Your task to perform on an android device: What's the weather today? Image 0: 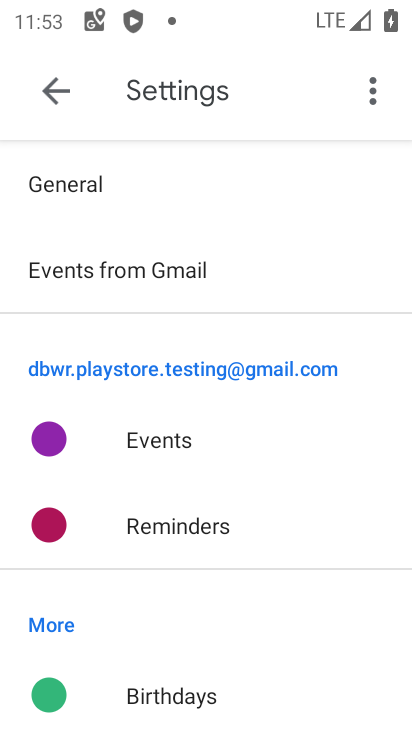
Step 0: press home button
Your task to perform on an android device: What's the weather today? Image 1: 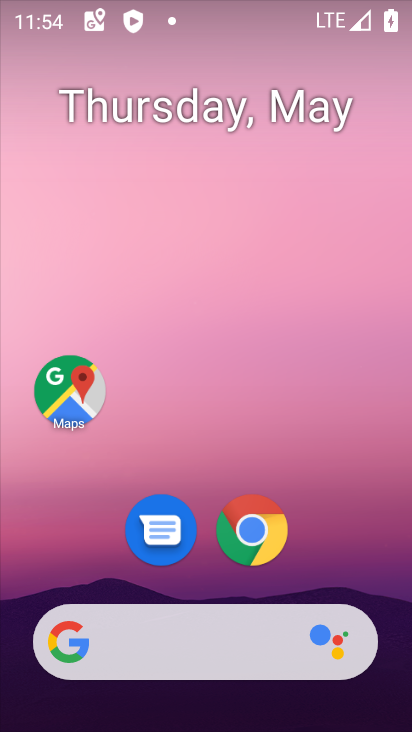
Step 1: click (213, 651)
Your task to perform on an android device: What's the weather today? Image 2: 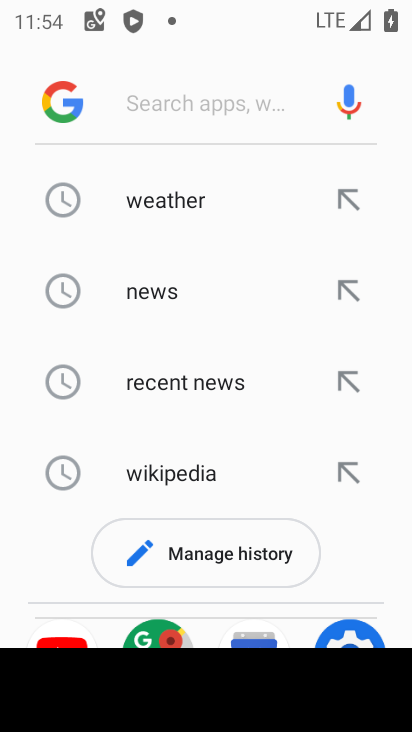
Step 2: type "What's the weather today?"
Your task to perform on an android device: What's the weather today? Image 3: 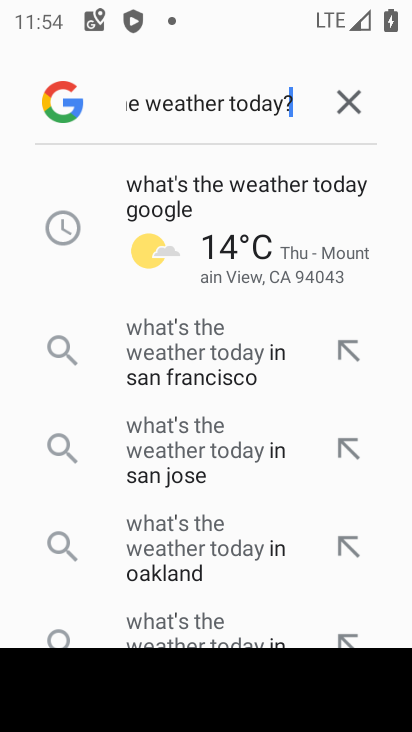
Step 3: click (196, 201)
Your task to perform on an android device: What's the weather today? Image 4: 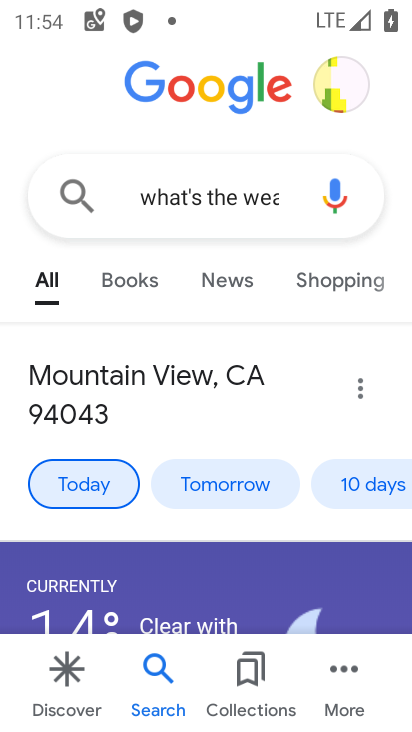
Step 4: task complete